Your task to perform on an android device: Show me popular videos on Youtube Image 0: 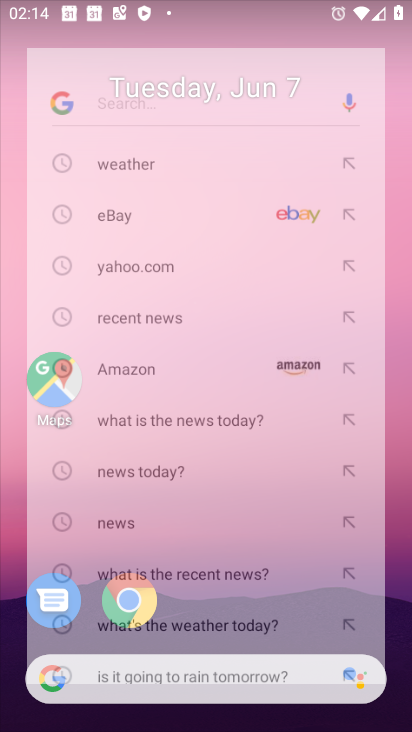
Step 0: drag from (232, 722) to (235, 248)
Your task to perform on an android device: Show me popular videos on Youtube Image 1: 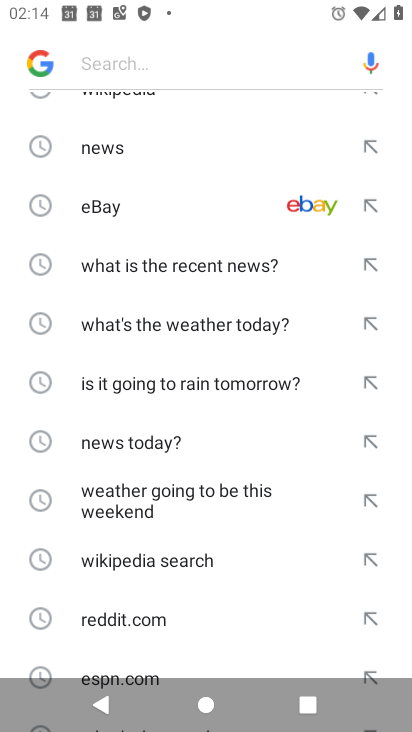
Step 1: press home button
Your task to perform on an android device: Show me popular videos on Youtube Image 2: 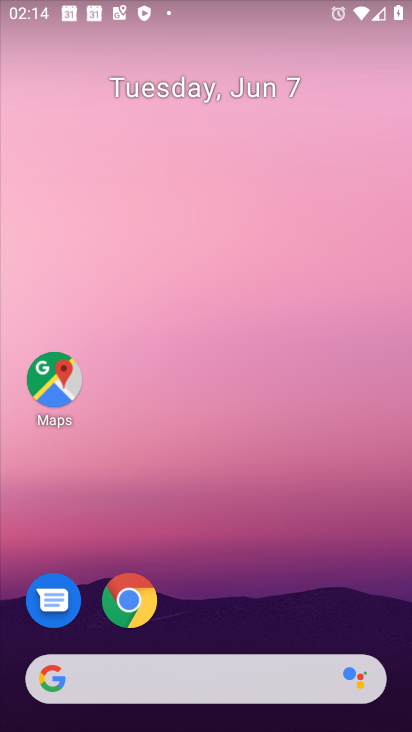
Step 2: drag from (233, 705) to (231, 202)
Your task to perform on an android device: Show me popular videos on Youtube Image 3: 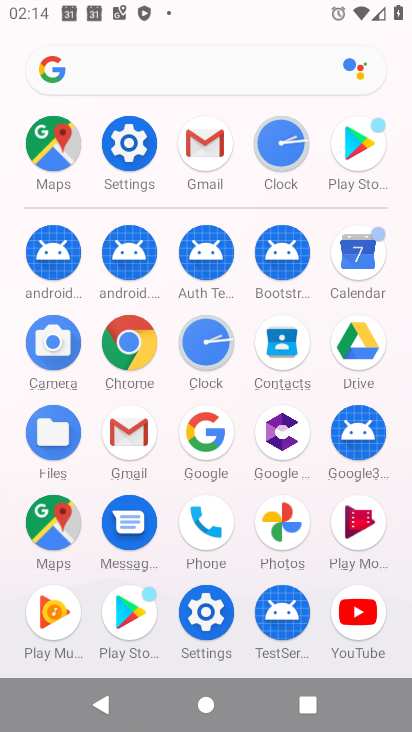
Step 3: click (345, 612)
Your task to perform on an android device: Show me popular videos on Youtube Image 4: 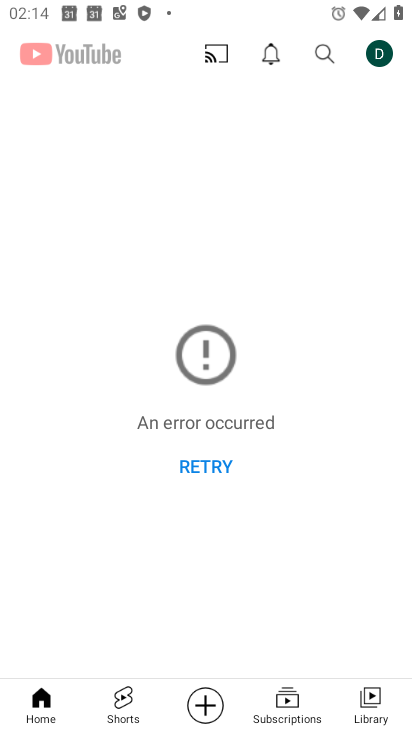
Step 4: click (203, 461)
Your task to perform on an android device: Show me popular videos on Youtube Image 5: 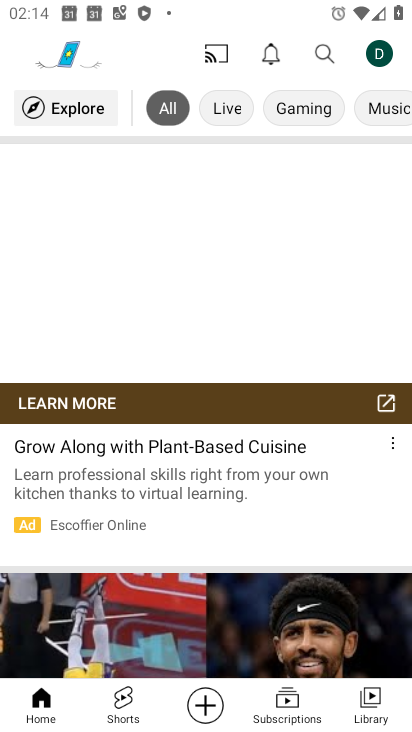
Step 5: click (318, 47)
Your task to perform on an android device: Show me popular videos on Youtube Image 6: 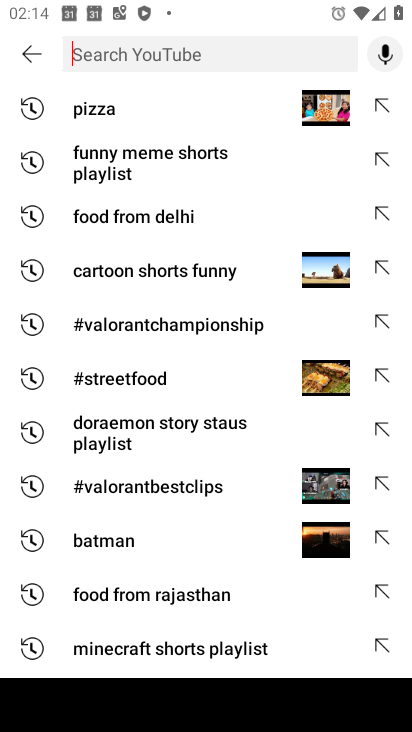
Step 6: type "popular videos on youtube"
Your task to perform on an android device: Show me popular videos on Youtube Image 7: 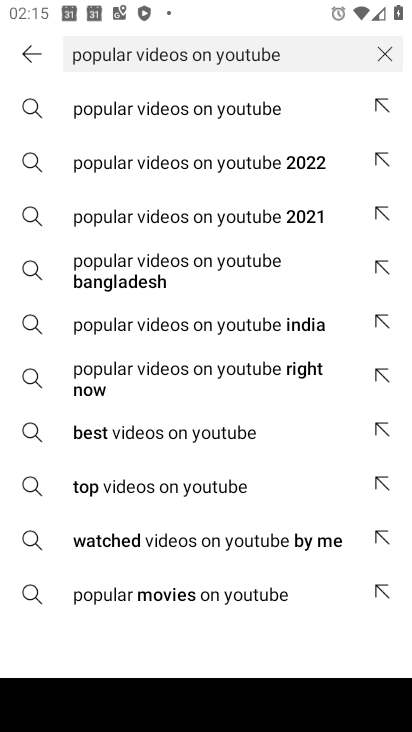
Step 7: click (264, 106)
Your task to perform on an android device: Show me popular videos on Youtube Image 8: 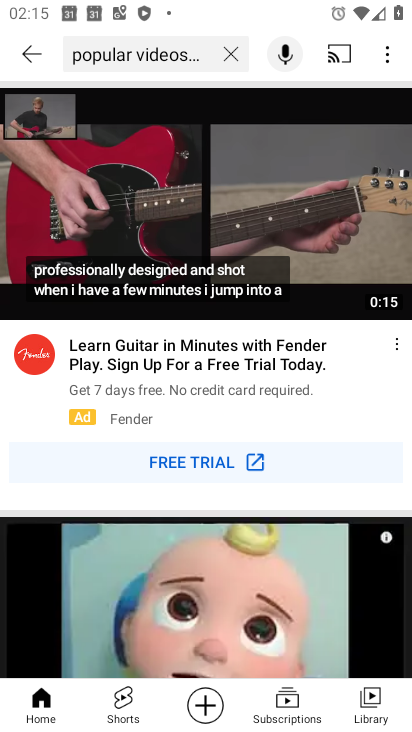
Step 8: drag from (279, 628) to (258, 297)
Your task to perform on an android device: Show me popular videos on Youtube Image 9: 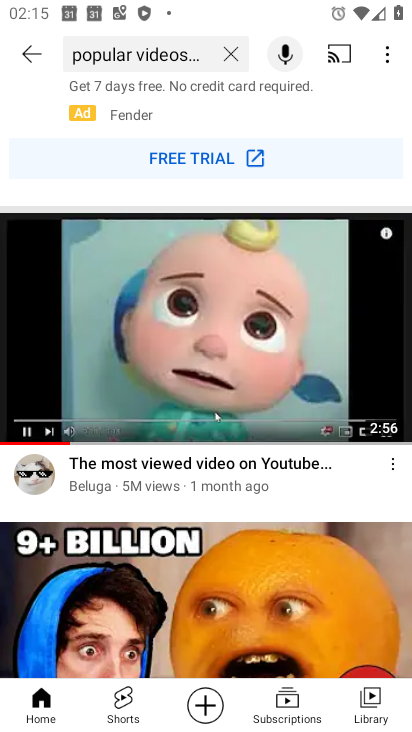
Step 9: click (204, 323)
Your task to perform on an android device: Show me popular videos on Youtube Image 10: 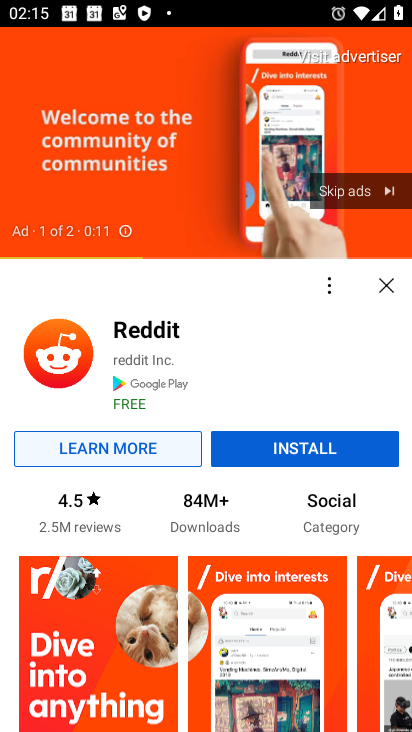
Step 10: click (381, 285)
Your task to perform on an android device: Show me popular videos on Youtube Image 11: 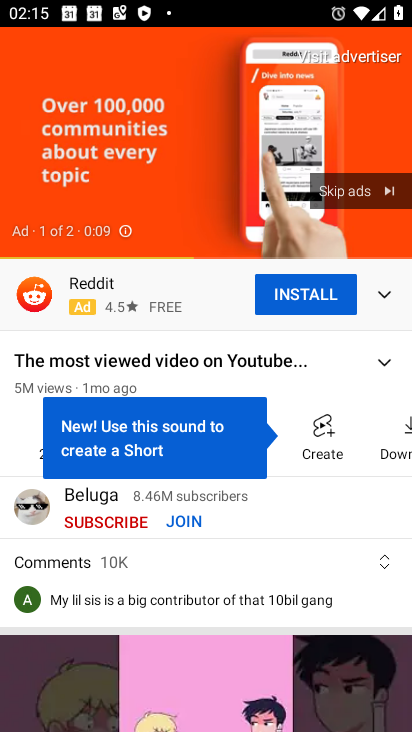
Step 11: click (358, 186)
Your task to perform on an android device: Show me popular videos on Youtube Image 12: 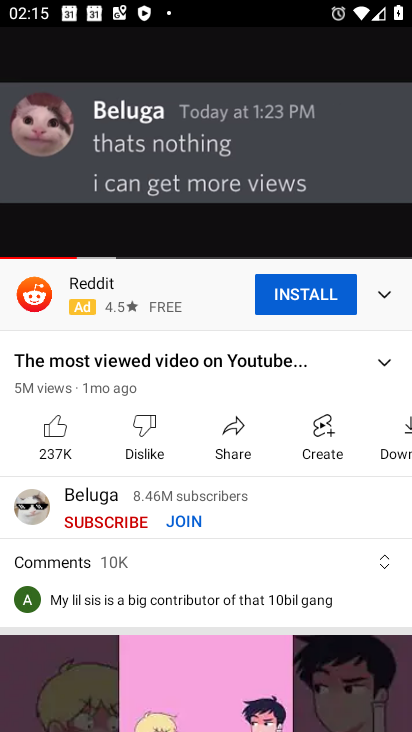
Step 12: task complete